Your task to perform on an android device: Open the phone app and click the voicemail tab. Image 0: 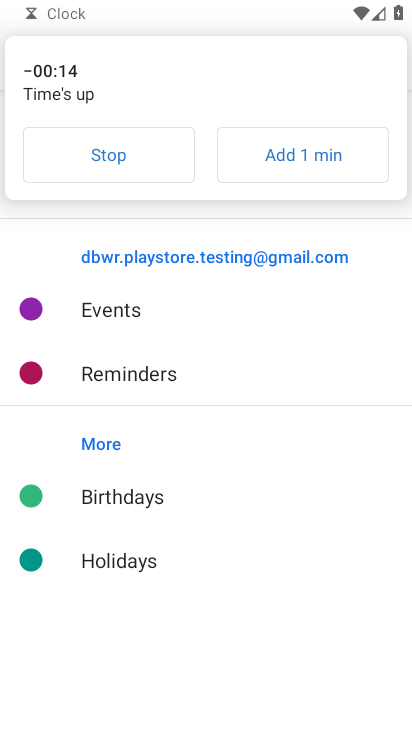
Step 0: press home button
Your task to perform on an android device: Open the phone app and click the voicemail tab. Image 1: 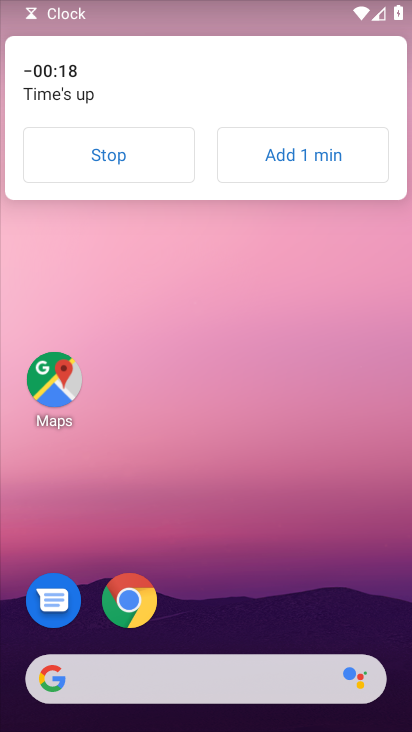
Step 1: drag from (192, 724) to (193, 8)
Your task to perform on an android device: Open the phone app and click the voicemail tab. Image 2: 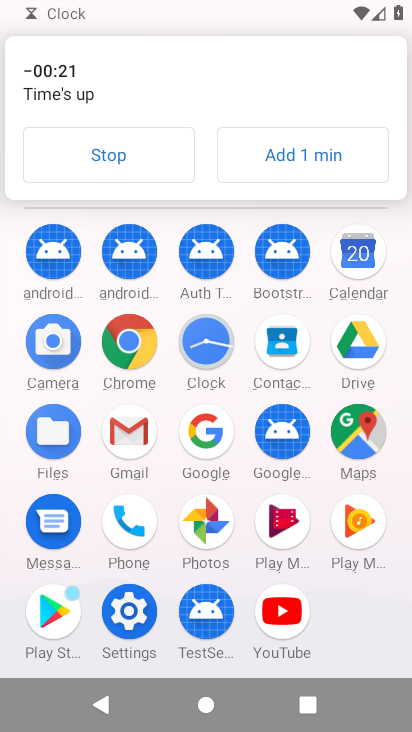
Step 2: click (128, 528)
Your task to perform on an android device: Open the phone app and click the voicemail tab. Image 3: 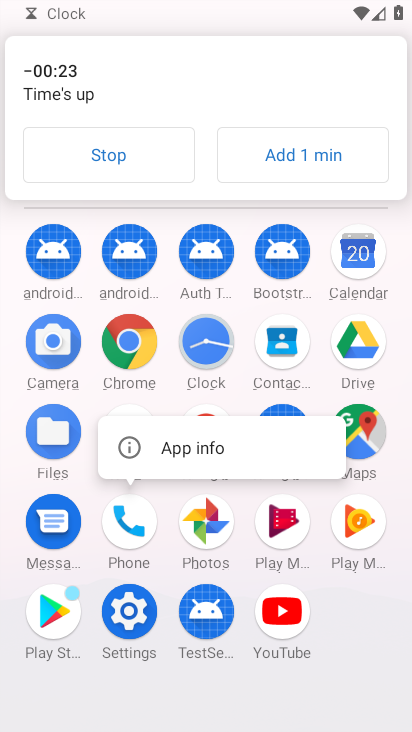
Step 3: click (127, 530)
Your task to perform on an android device: Open the phone app and click the voicemail tab. Image 4: 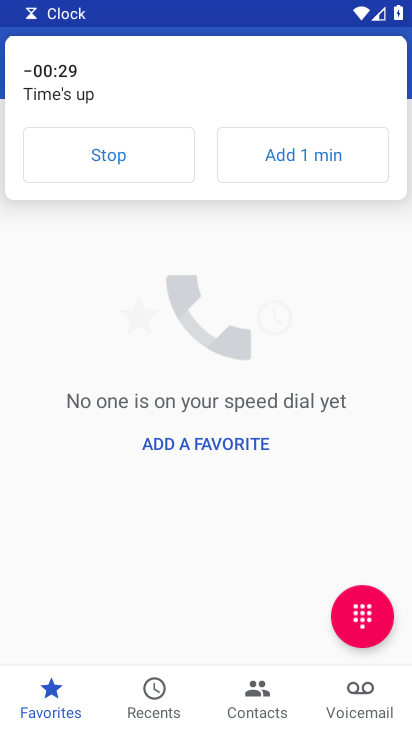
Step 4: click (354, 691)
Your task to perform on an android device: Open the phone app and click the voicemail tab. Image 5: 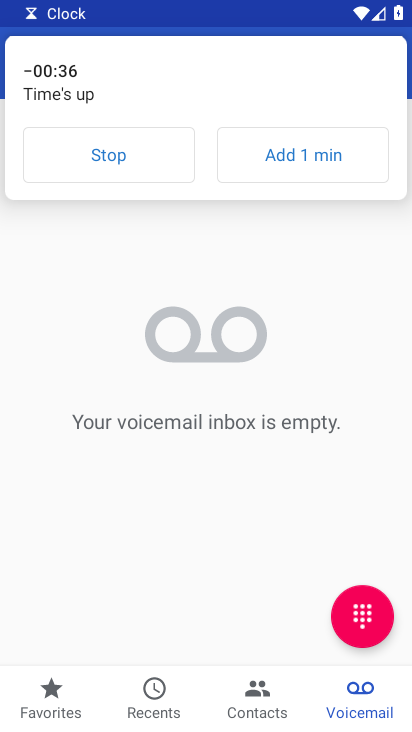
Step 5: task complete